Your task to perform on an android device: Open notification settings Image 0: 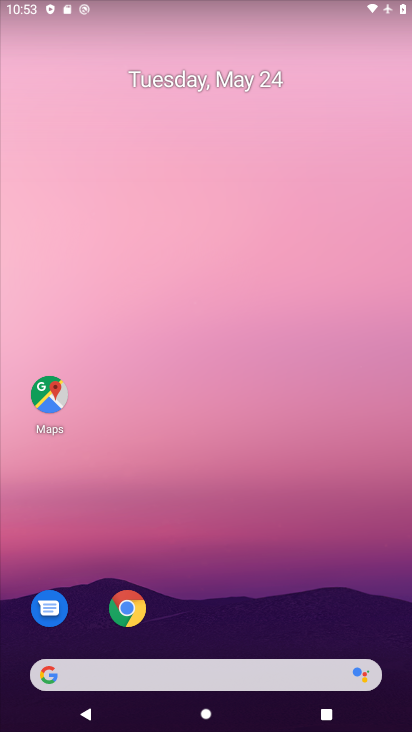
Step 0: drag from (388, 623) to (335, 110)
Your task to perform on an android device: Open notification settings Image 1: 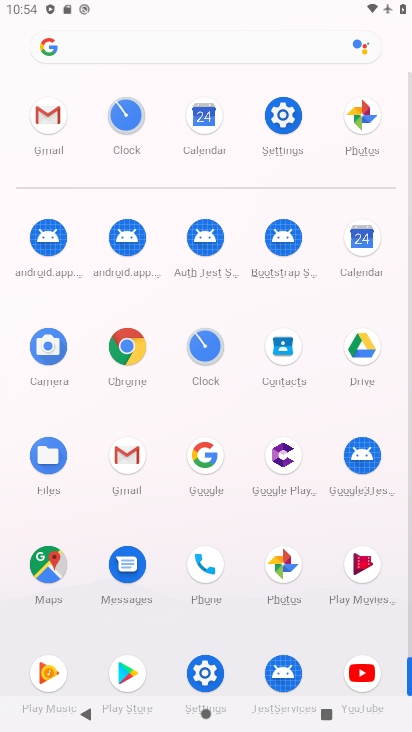
Step 1: click (203, 675)
Your task to perform on an android device: Open notification settings Image 2: 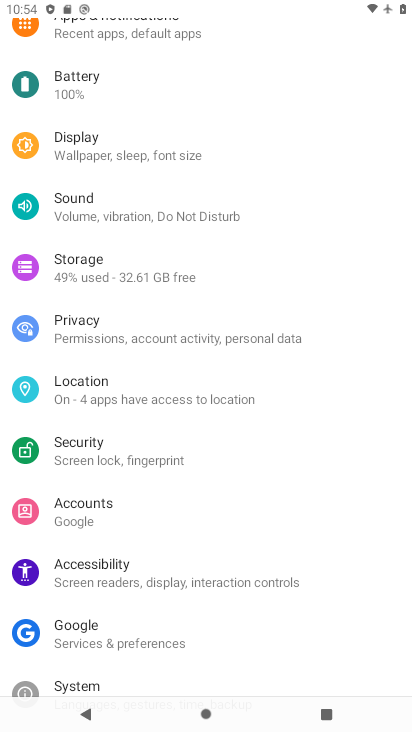
Step 2: drag from (295, 168) to (329, 454)
Your task to perform on an android device: Open notification settings Image 3: 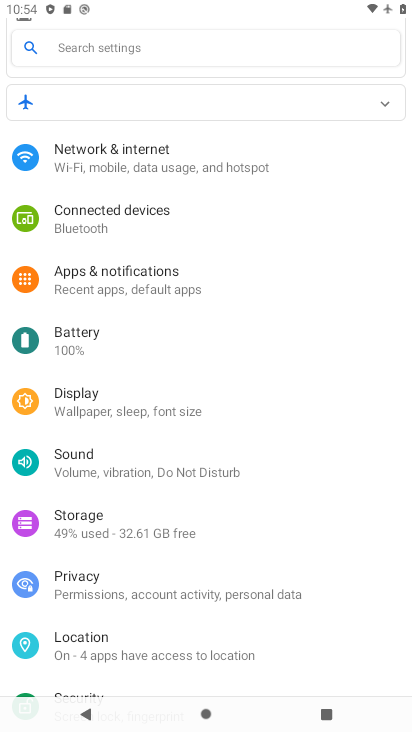
Step 3: click (70, 272)
Your task to perform on an android device: Open notification settings Image 4: 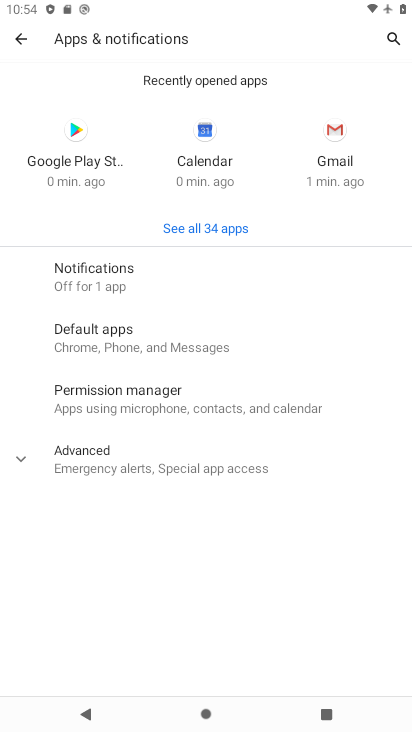
Step 4: click (15, 453)
Your task to perform on an android device: Open notification settings Image 5: 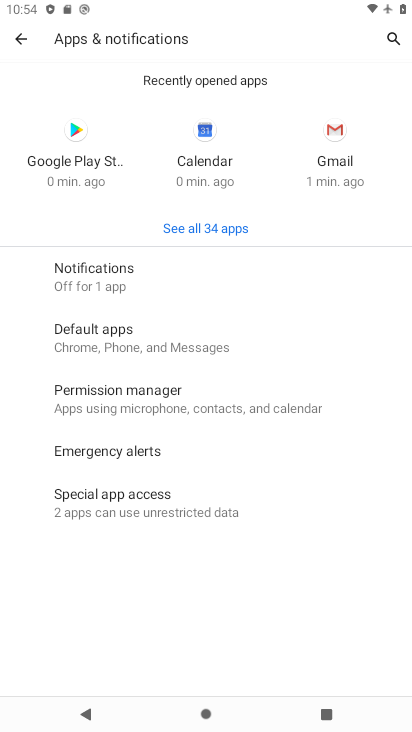
Step 5: click (102, 276)
Your task to perform on an android device: Open notification settings Image 6: 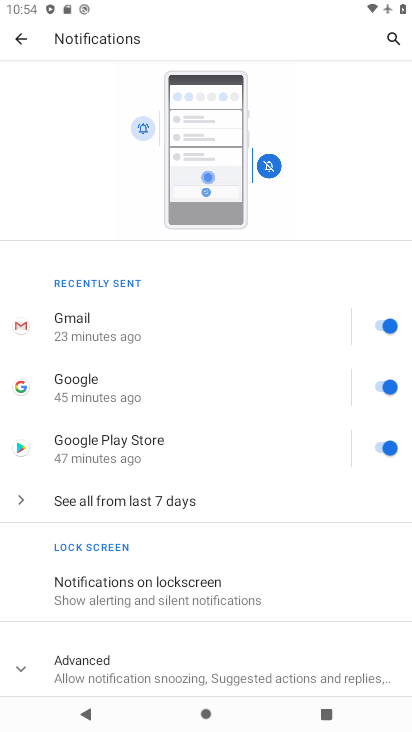
Step 6: drag from (272, 654) to (279, 233)
Your task to perform on an android device: Open notification settings Image 7: 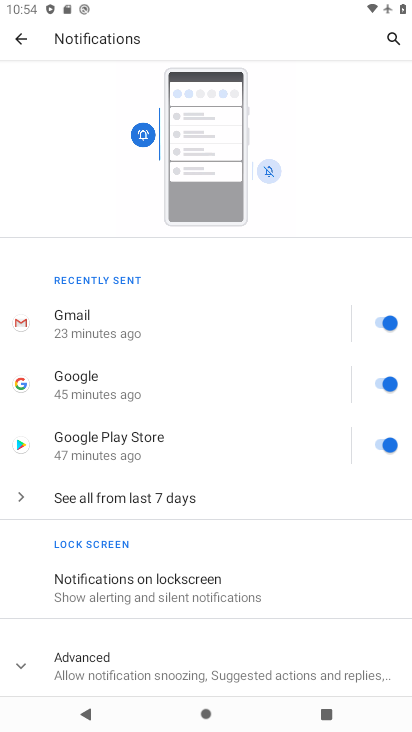
Step 7: click (19, 663)
Your task to perform on an android device: Open notification settings Image 8: 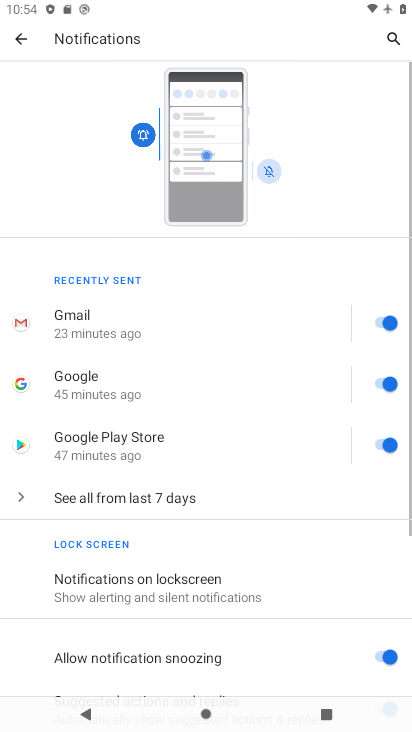
Step 8: task complete